Your task to perform on an android device: Find coffee shops on Maps Image 0: 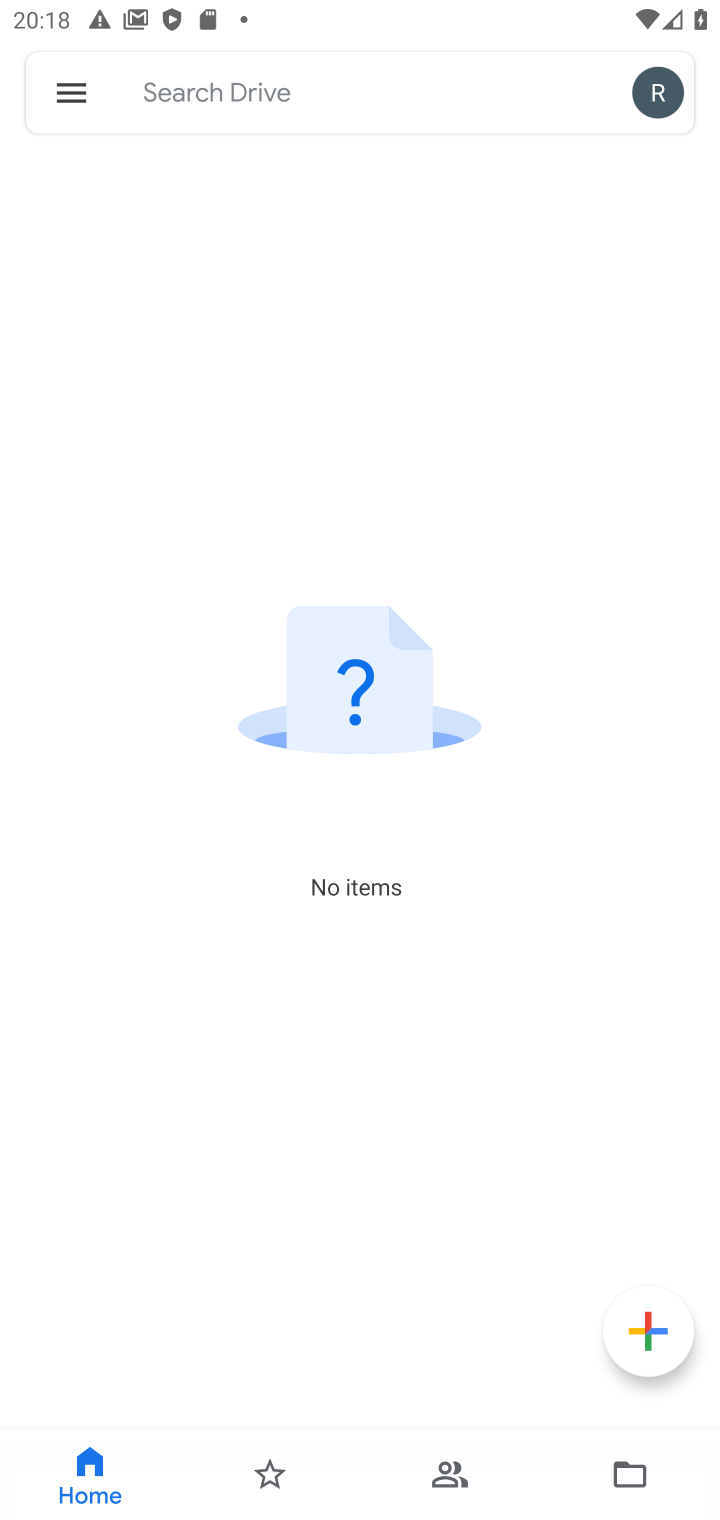
Step 0: press home button
Your task to perform on an android device: Find coffee shops on Maps Image 1: 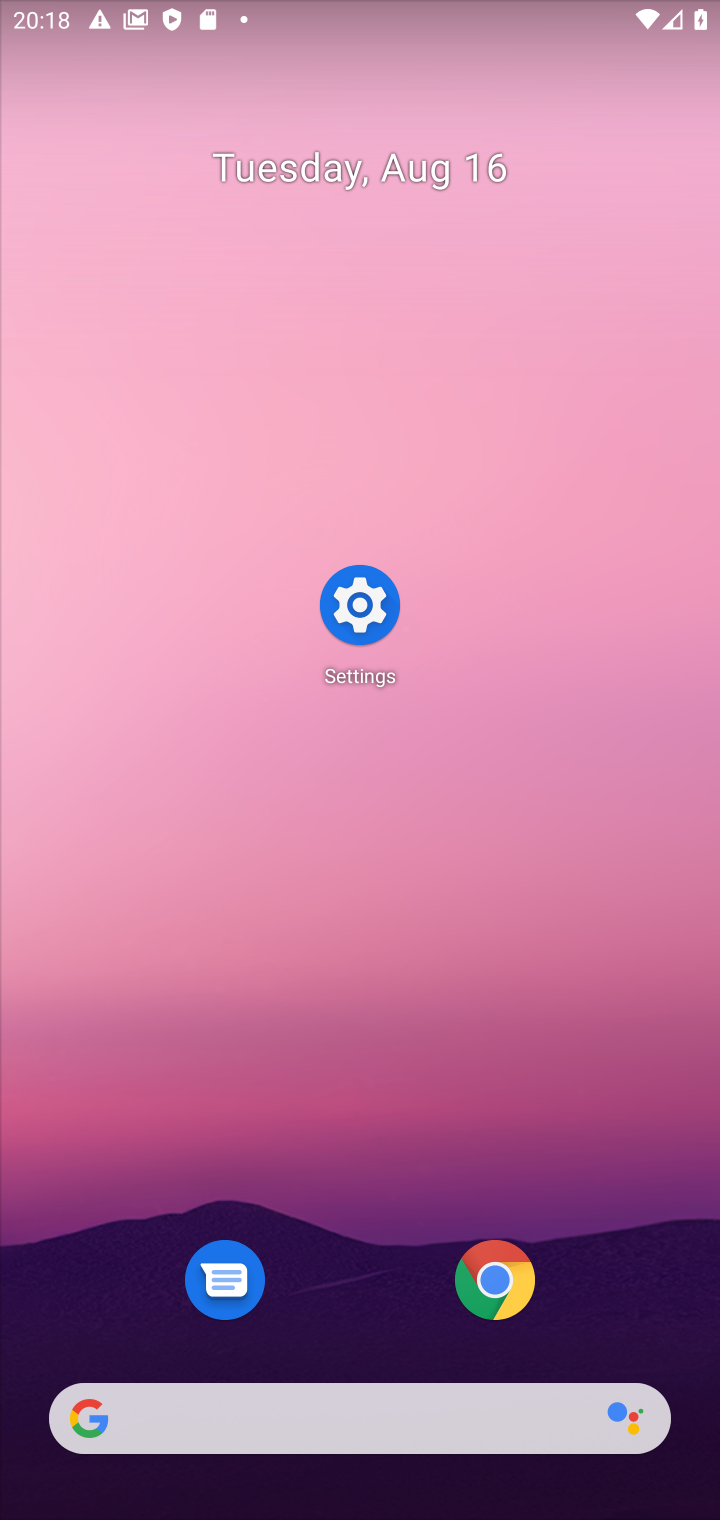
Step 1: drag from (334, 1286) to (349, 420)
Your task to perform on an android device: Find coffee shops on Maps Image 2: 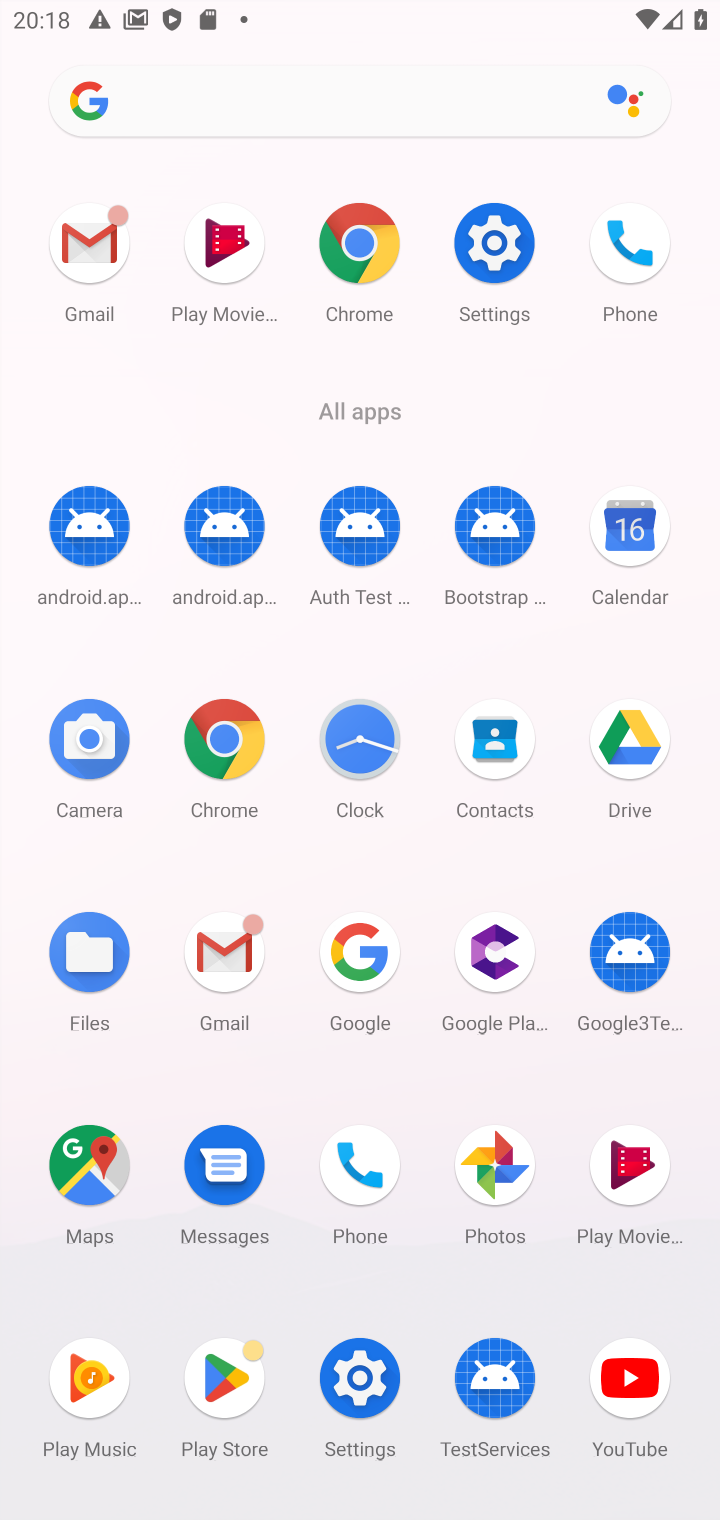
Step 2: click (76, 1209)
Your task to perform on an android device: Find coffee shops on Maps Image 3: 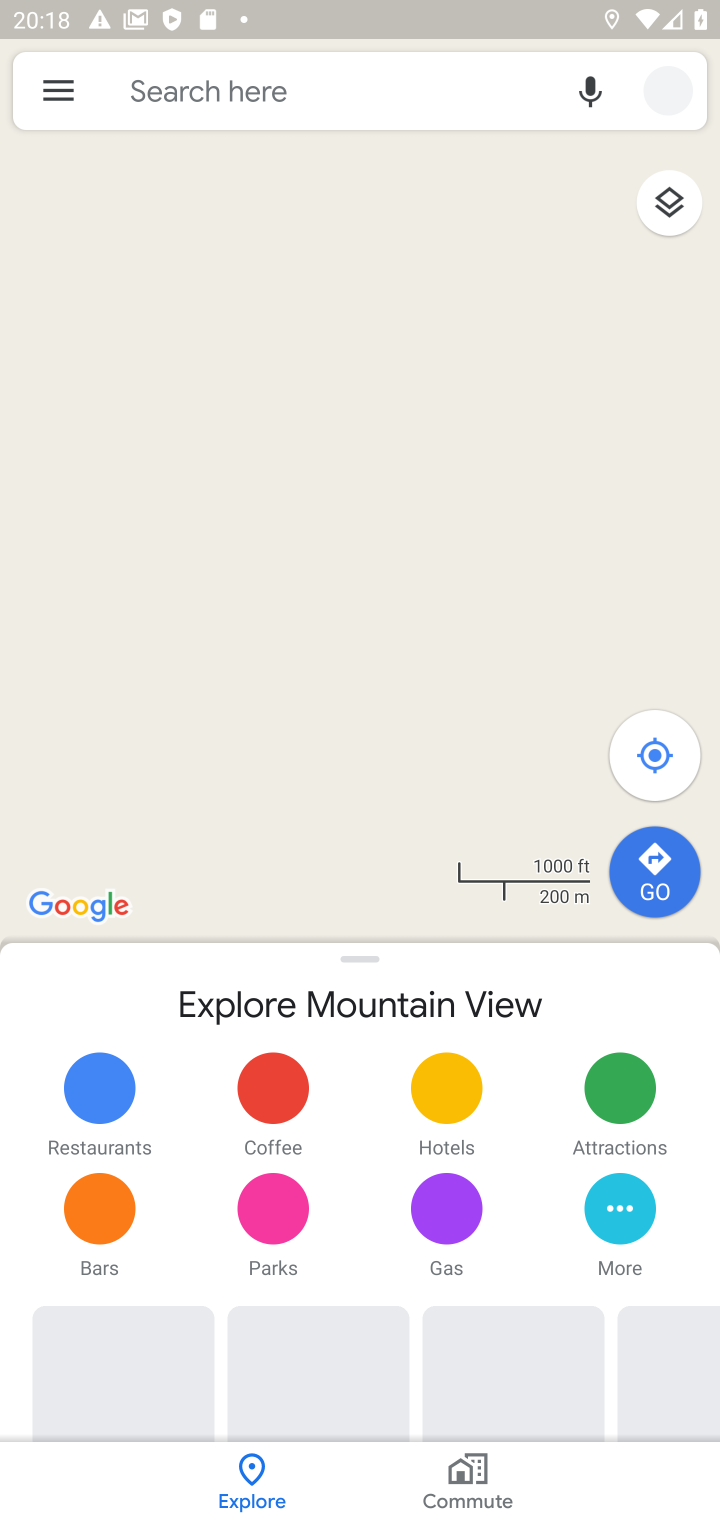
Step 3: click (332, 87)
Your task to perform on an android device: Find coffee shops on Maps Image 4: 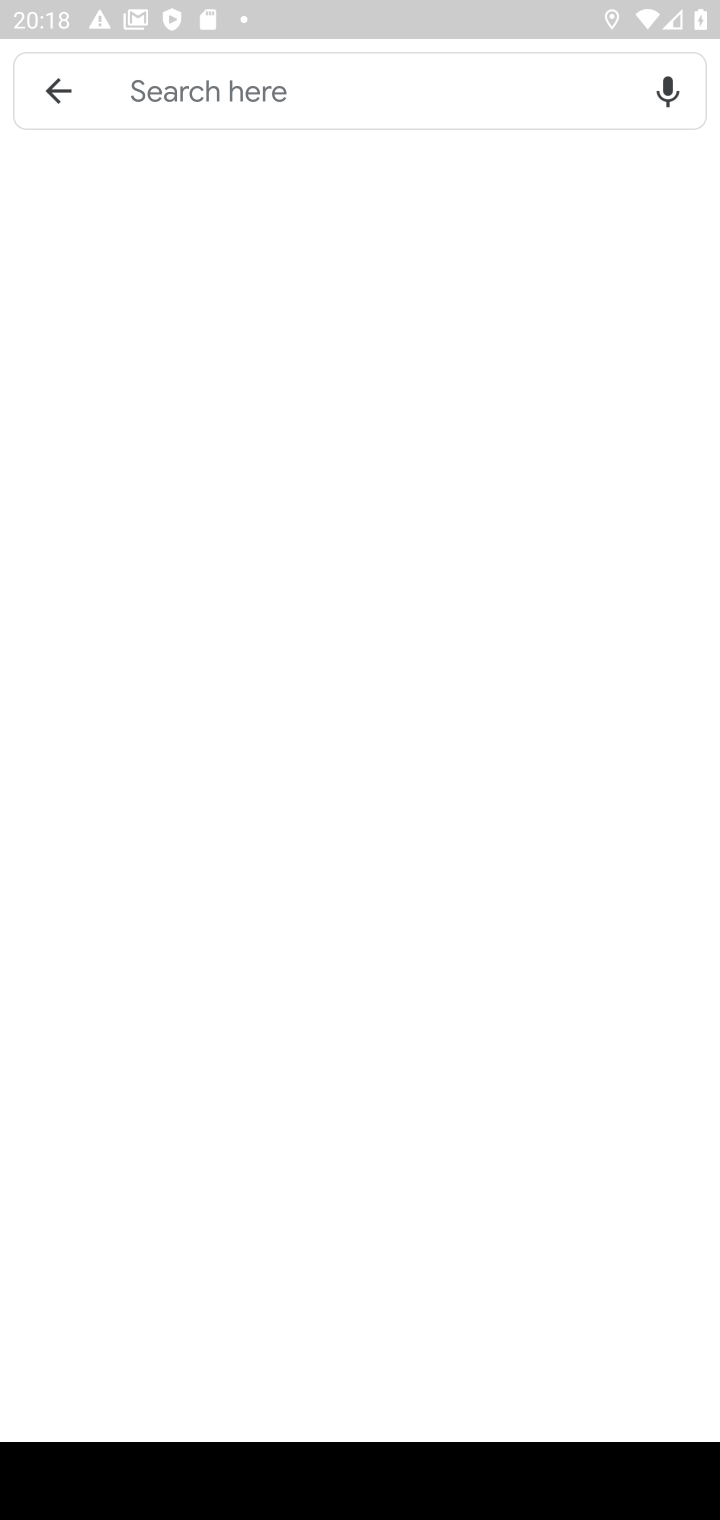
Step 4: type "coffee shops"
Your task to perform on an android device: Find coffee shops on Maps Image 5: 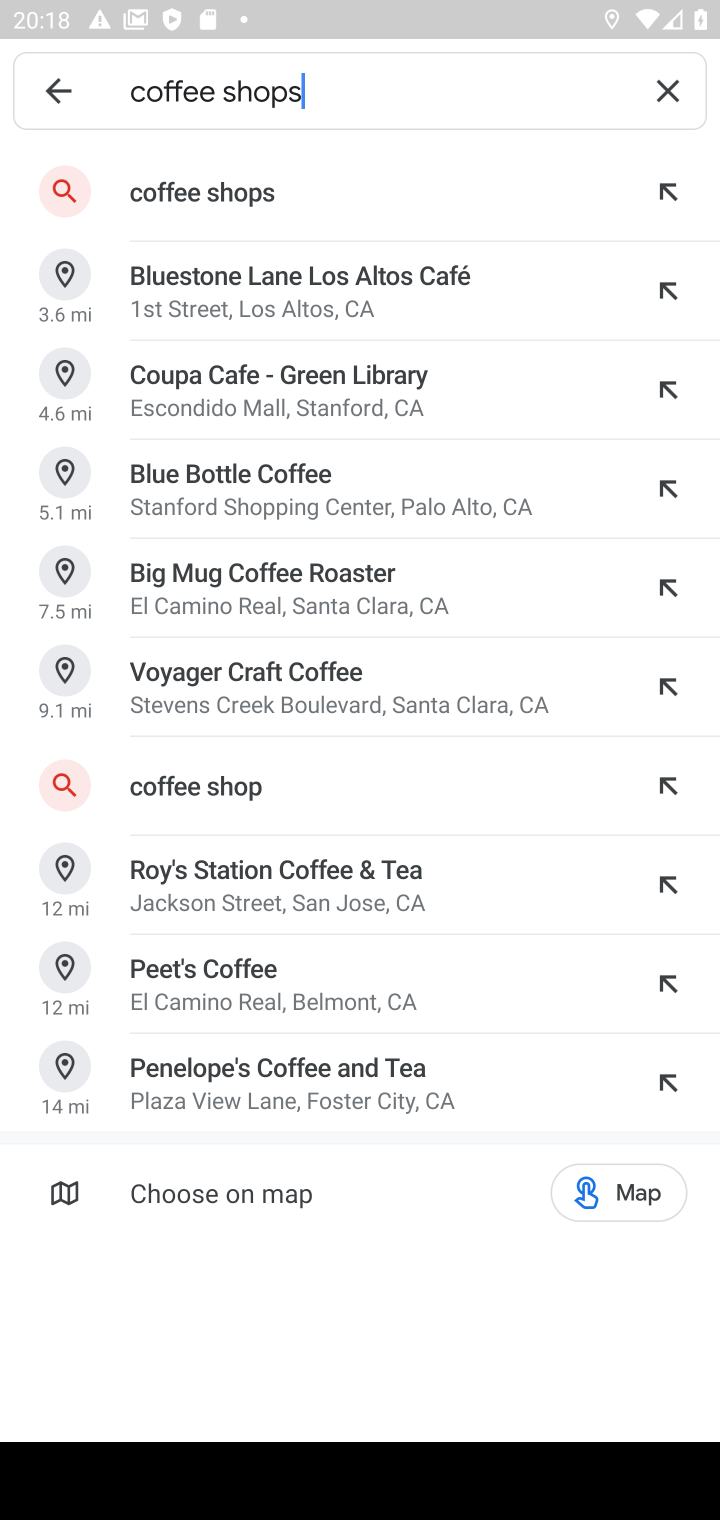
Step 5: click (266, 191)
Your task to perform on an android device: Find coffee shops on Maps Image 6: 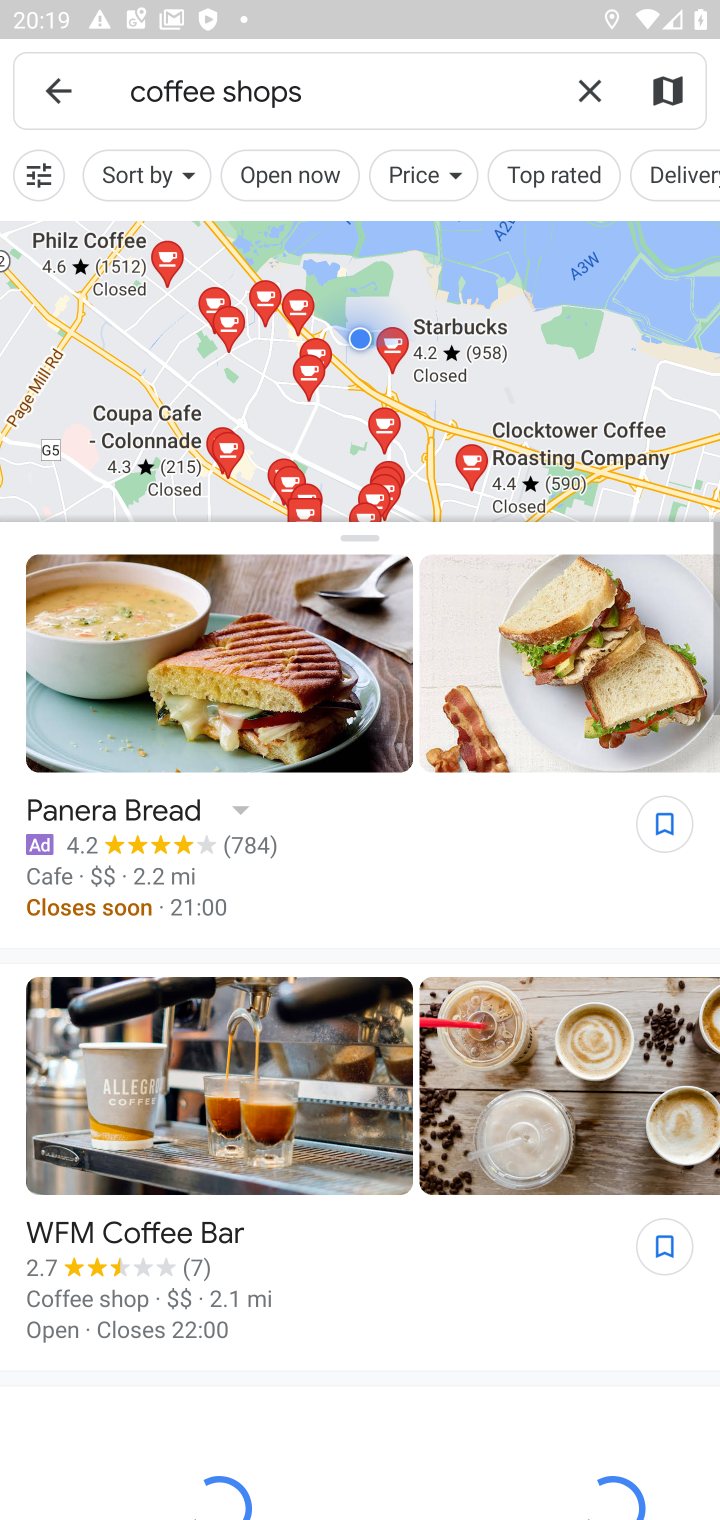
Step 6: task complete